Your task to perform on an android device: turn off wifi Image 0: 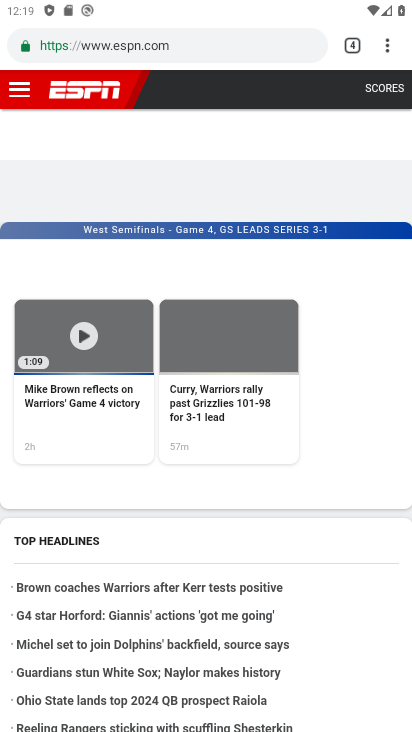
Step 0: press home button
Your task to perform on an android device: turn off wifi Image 1: 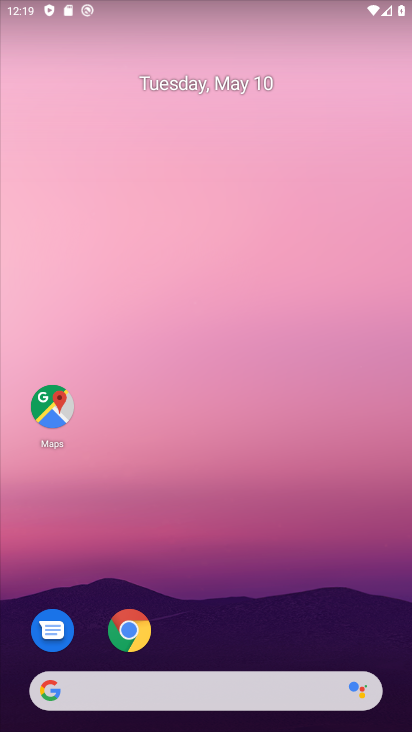
Step 1: drag from (217, 715) to (223, 252)
Your task to perform on an android device: turn off wifi Image 2: 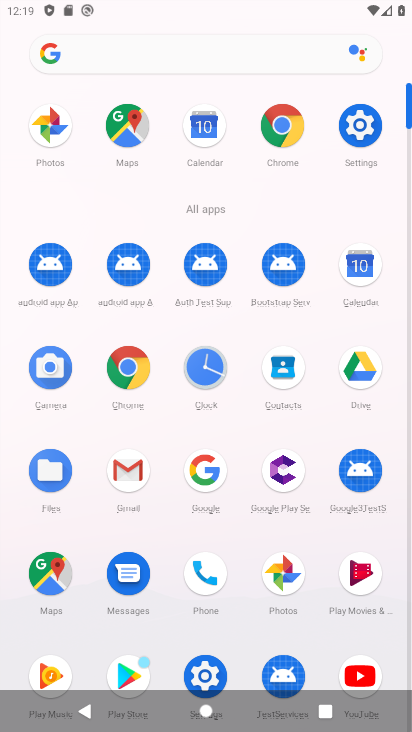
Step 2: click (357, 120)
Your task to perform on an android device: turn off wifi Image 3: 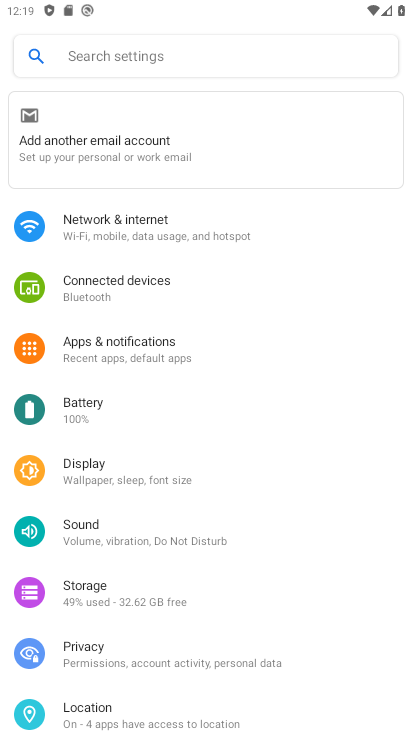
Step 3: click (107, 230)
Your task to perform on an android device: turn off wifi Image 4: 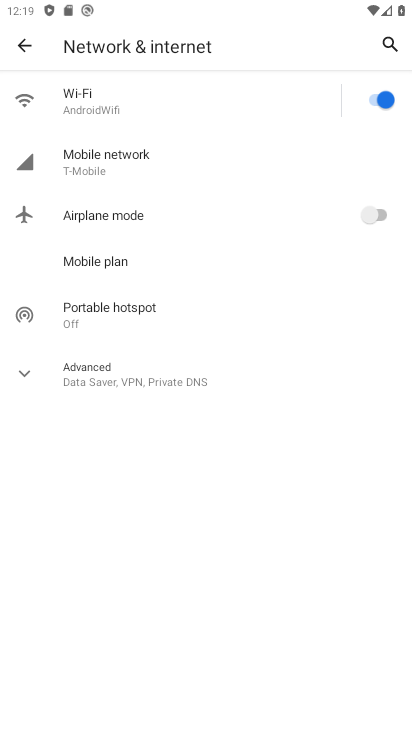
Step 4: click (375, 99)
Your task to perform on an android device: turn off wifi Image 5: 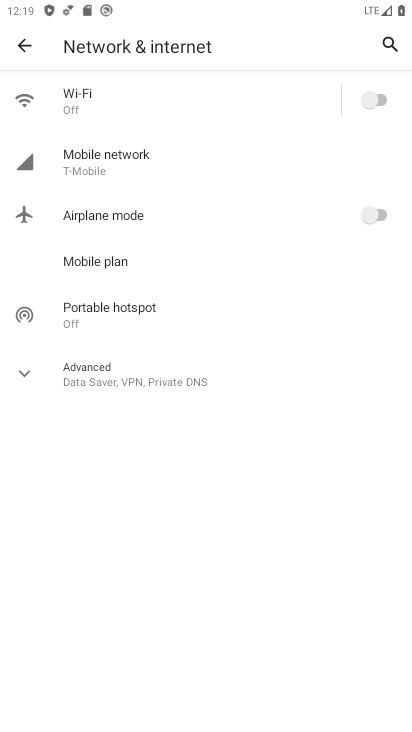
Step 5: task complete